Your task to perform on an android device: turn pop-ups on in chrome Image 0: 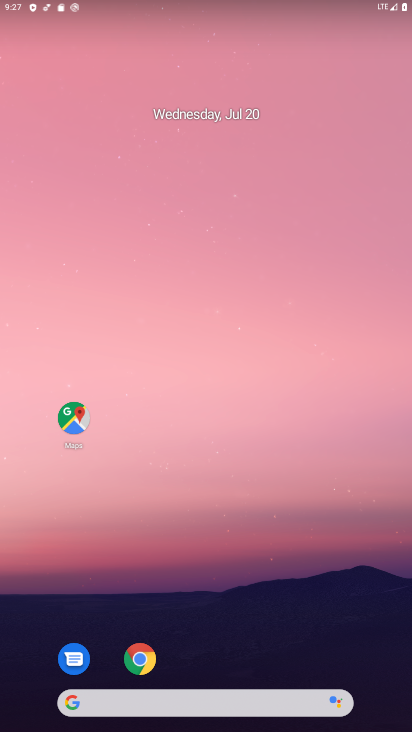
Step 0: click (144, 659)
Your task to perform on an android device: turn pop-ups on in chrome Image 1: 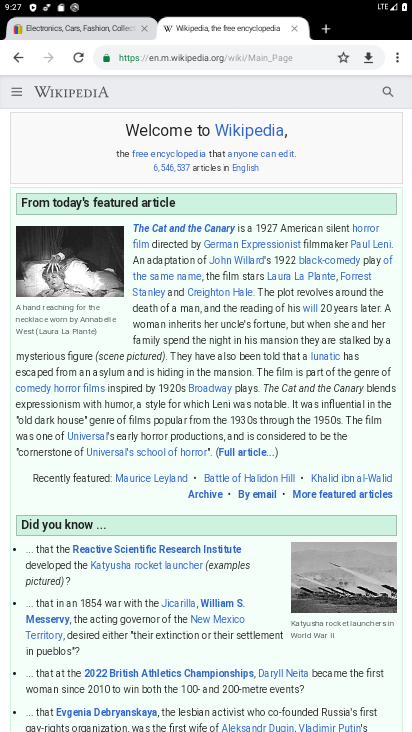
Step 1: click (396, 62)
Your task to perform on an android device: turn pop-ups on in chrome Image 2: 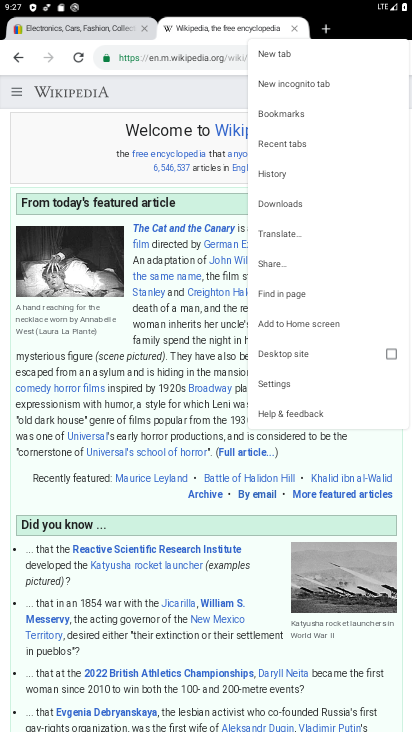
Step 2: click (276, 380)
Your task to perform on an android device: turn pop-ups on in chrome Image 3: 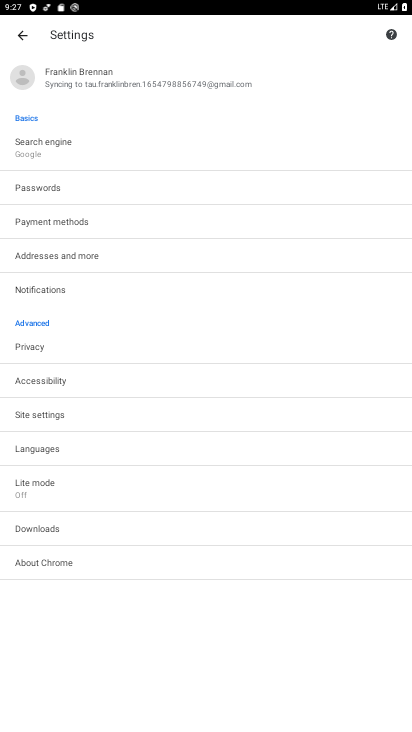
Step 3: click (41, 413)
Your task to perform on an android device: turn pop-ups on in chrome Image 4: 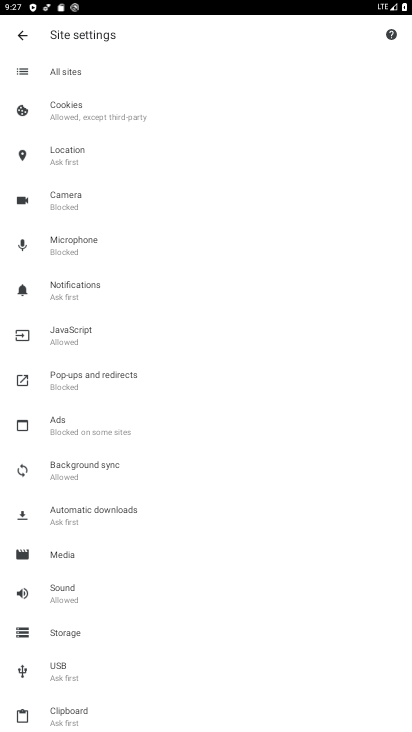
Step 4: click (81, 374)
Your task to perform on an android device: turn pop-ups on in chrome Image 5: 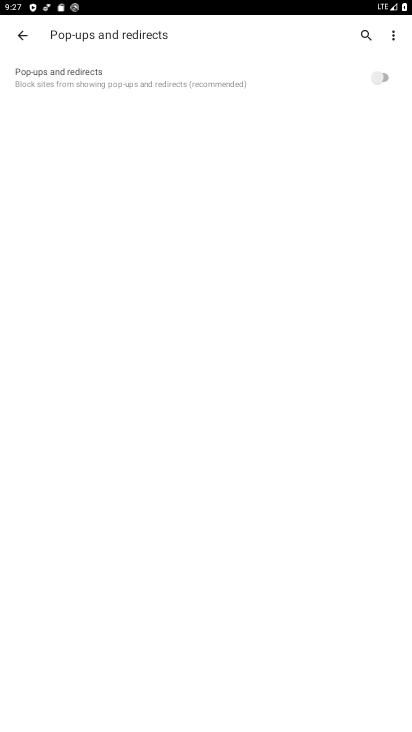
Step 5: click (376, 80)
Your task to perform on an android device: turn pop-ups on in chrome Image 6: 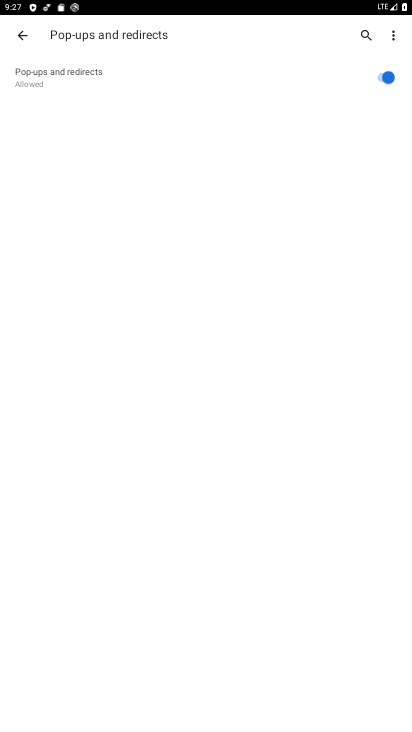
Step 6: task complete